Your task to perform on an android device: Is it going to rain tomorrow? Image 0: 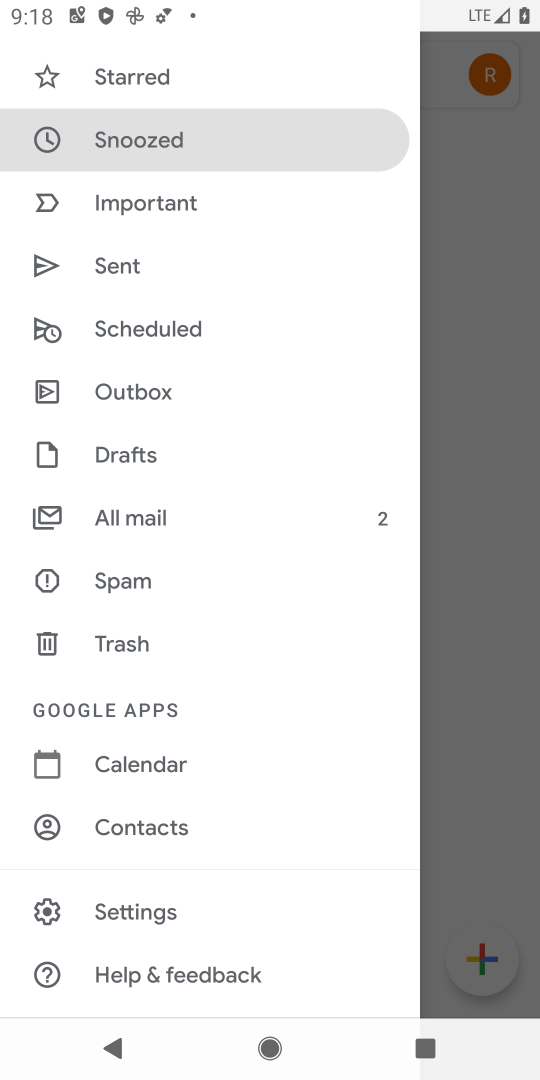
Step 0: press home button
Your task to perform on an android device: Is it going to rain tomorrow? Image 1: 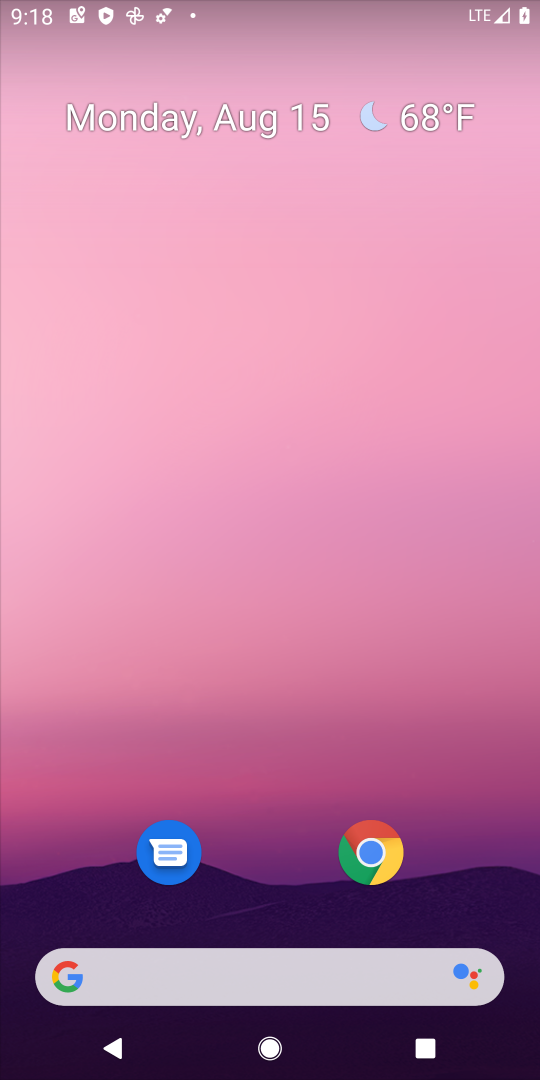
Step 1: drag from (207, 972) to (262, 328)
Your task to perform on an android device: Is it going to rain tomorrow? Image 2: 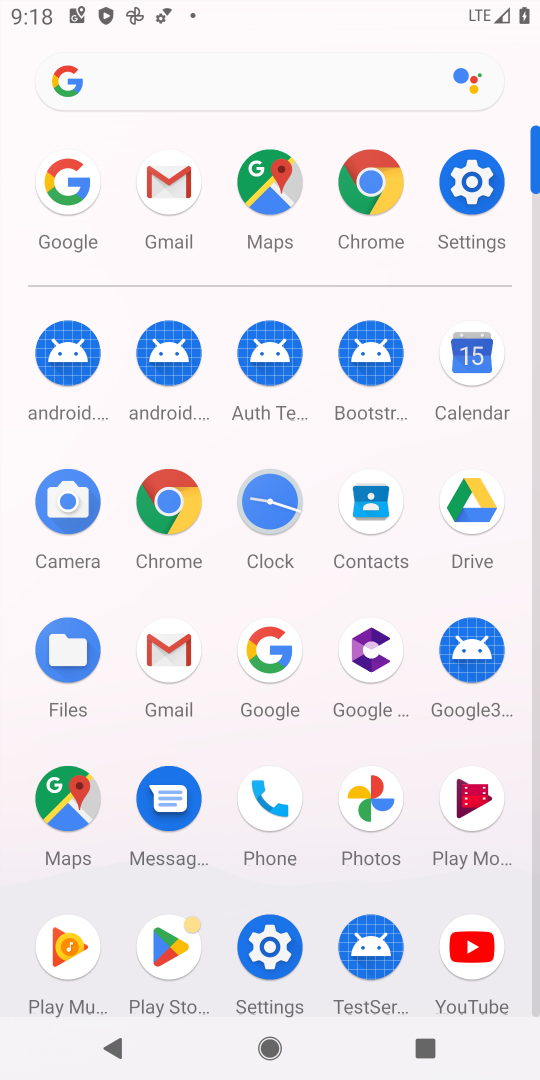
Step 2: click (263, 646)
Your task to perform on an android device: Is it going to rain tomorrow? Image 3: 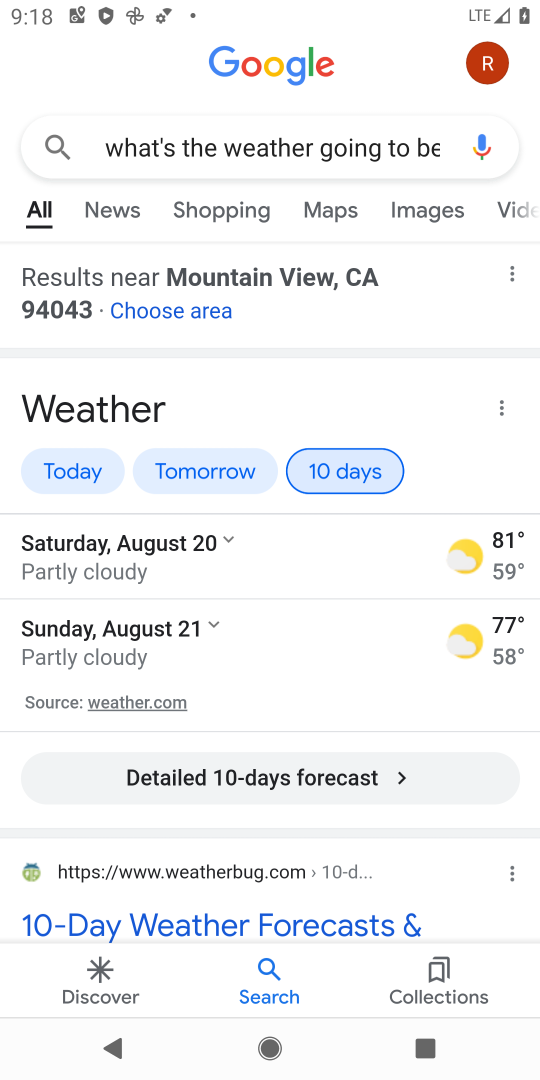
Step 3: click (438, 152)
Your task to perform on an android device: Is it going to rain tomorrow? Image 4: 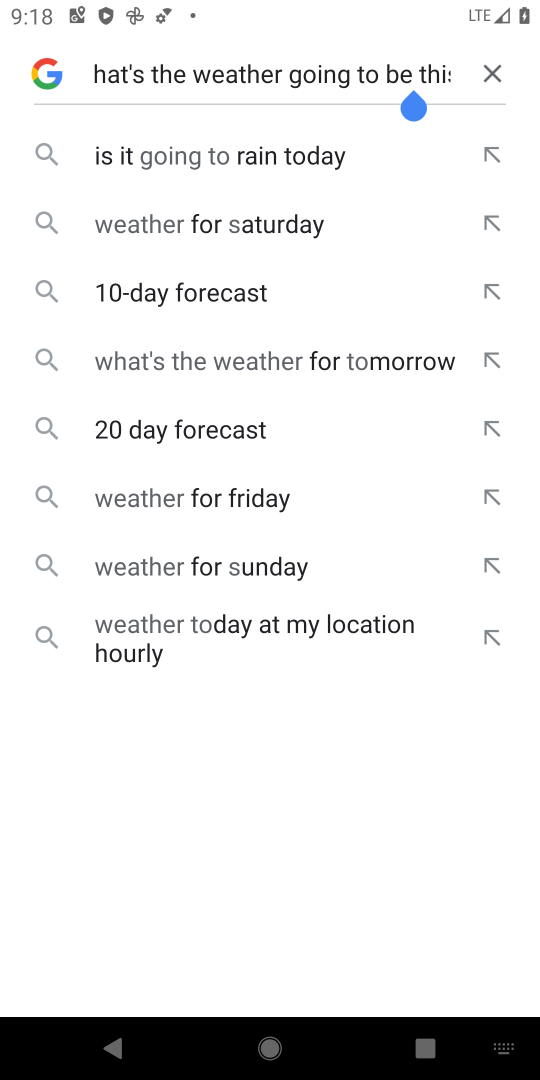
Step 4: click (496, 72)
Your task to perform on an android device: Is it going to rain tomorrow? Image 5: 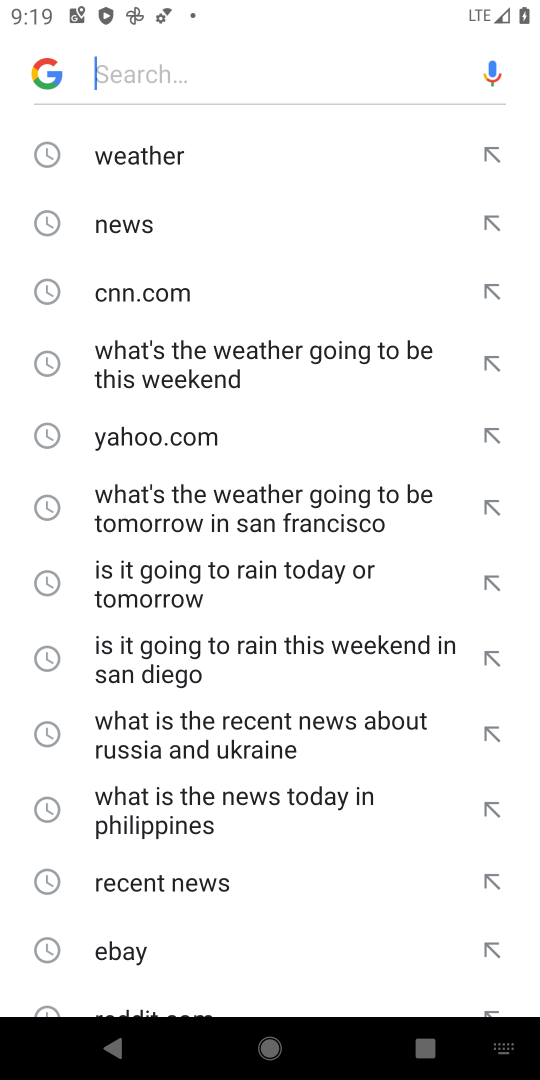
Step 5: type "is it goinig to rain tomorrow?"
Your task to perform on an android device: Is it going to rain tomorrow? Image 6: 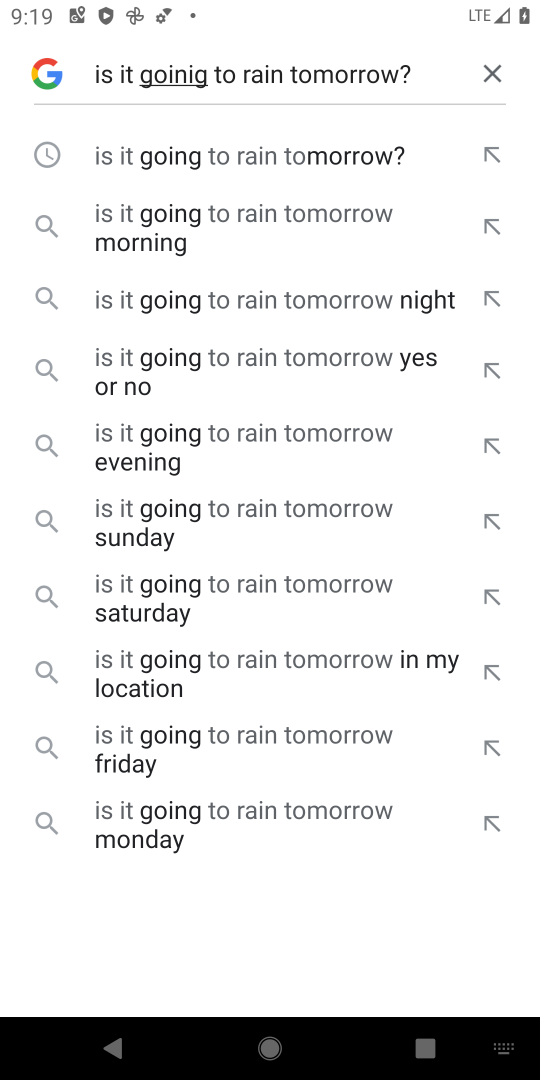
Step 6: click (353, 166)
Your task to perform on an android device: Is it going to rain tomorrow? Image 7: 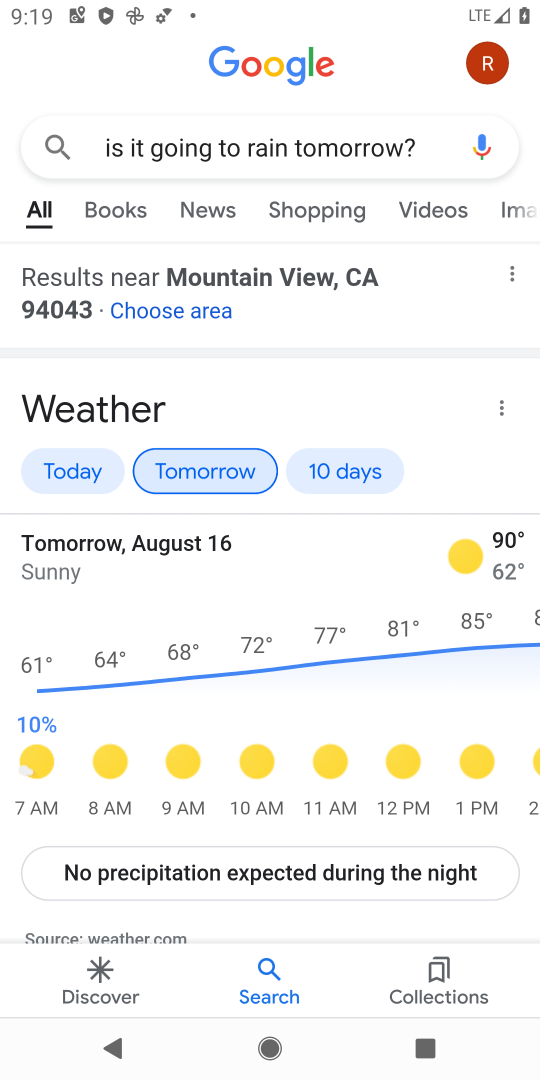
Step 7: task complete